Your task to perform on an android device: set the stopwatch Image 0: 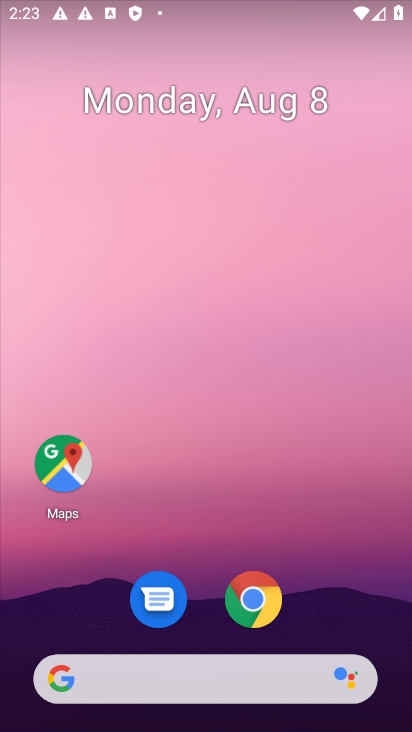
Step 0: drag from (219, 317) to (340, 14)
Your task to perform on an android device: set the stopwatch Image 1: 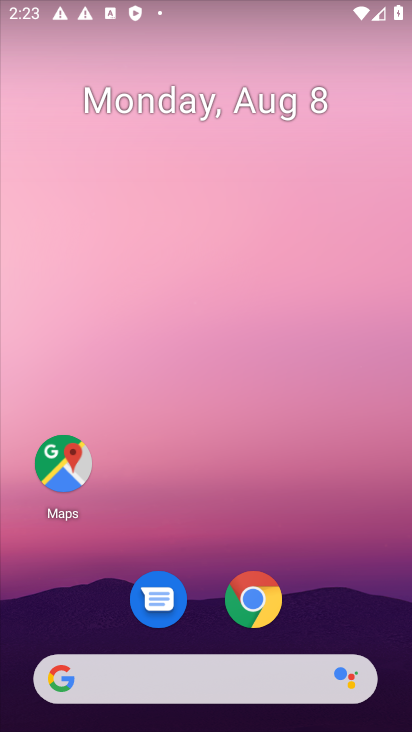
Step 1: drag from (208, 546) to (354, 6)
Your task to perform on an android device: set the stopwatch Image 2: 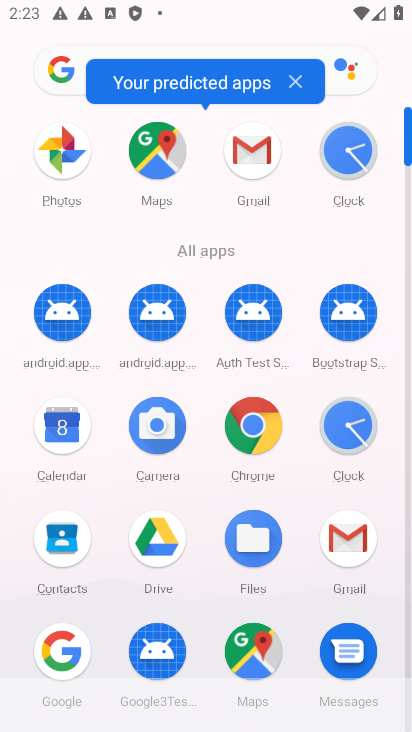
Step 2: drag from (302, 584) to (316, 646)
Your task to perform on an android device: set the stopwatch Image 3: 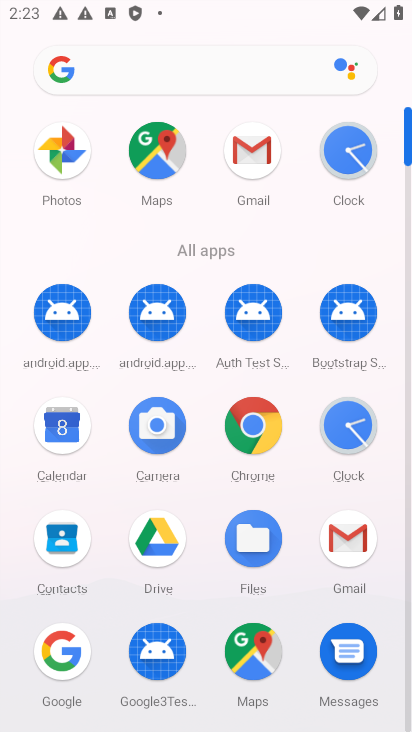
Step 3: click (349, 180)
Your task to perform on an android device: set the stopwatch Image 4: 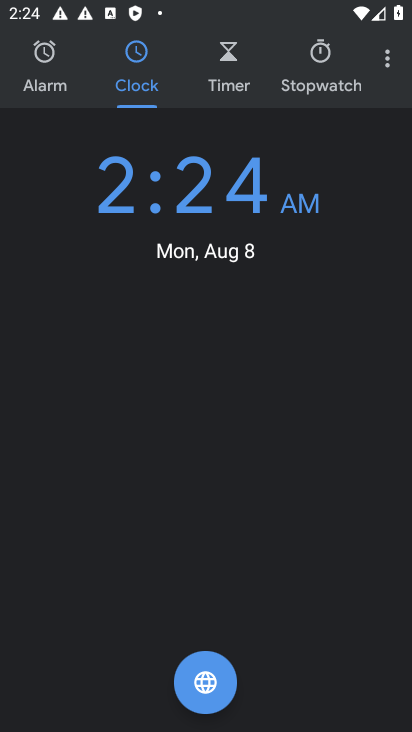
Step 4: click (321, 65)
Your task to perform on an android device: set the stopwatch Image 5: 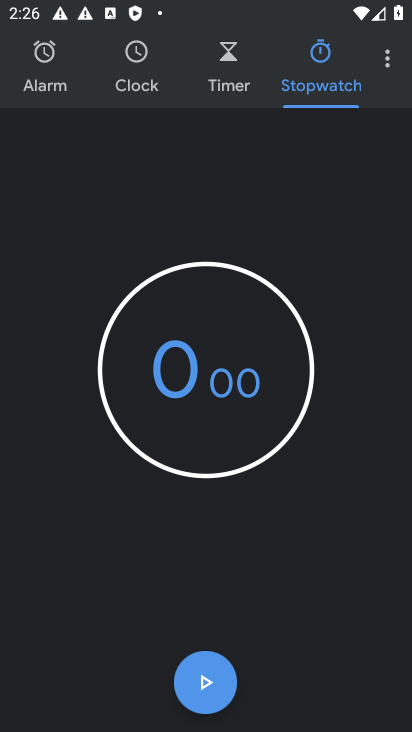
Step 5: task complete